Your task to perform on an android device: toggle notifications settings in the gmail app Image 0: 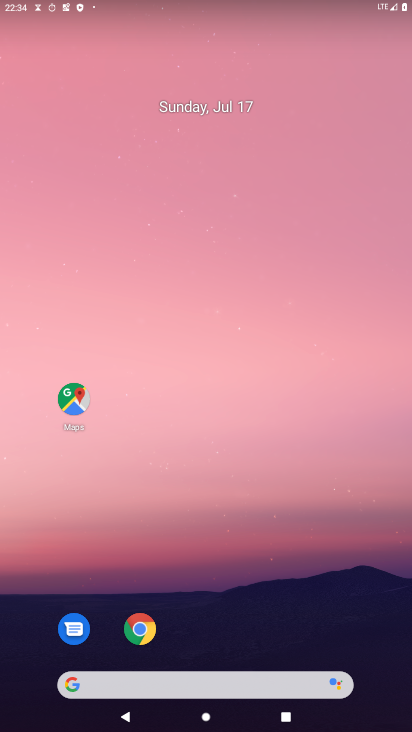
Step 0: drag from (227, 695) to (209, 98)
Your task to perform on an android device: toggle notifications settings in the gmail app Image 1: 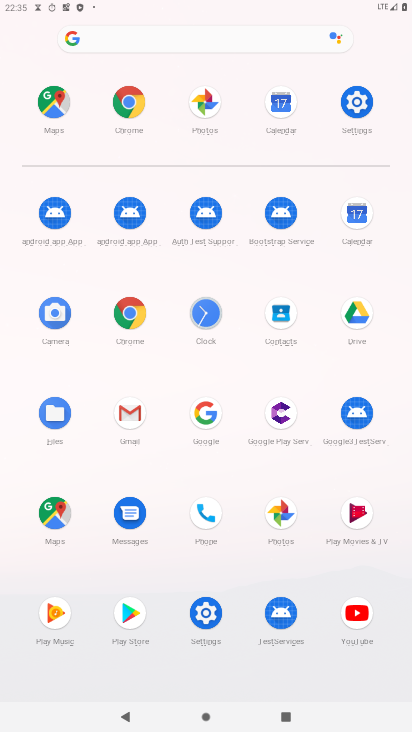
Step 1: click (130, 413)
Your task to perform on an android device: toggle notifications settings in the gmail app Image 2: 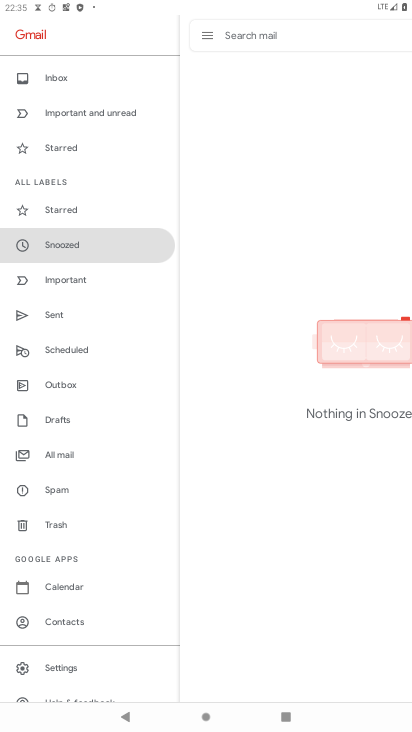
Step 2: click (69, 668)
Your task to perform on an android device: toggle notifications settings in the gmail app Image 3: 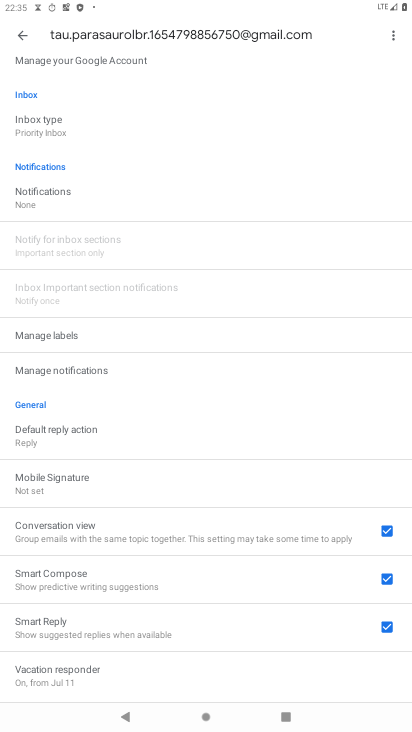
Step 3: click (47, 195)
Your task to perform on an android device: toggle notifications settings in the gmail app Image 4: 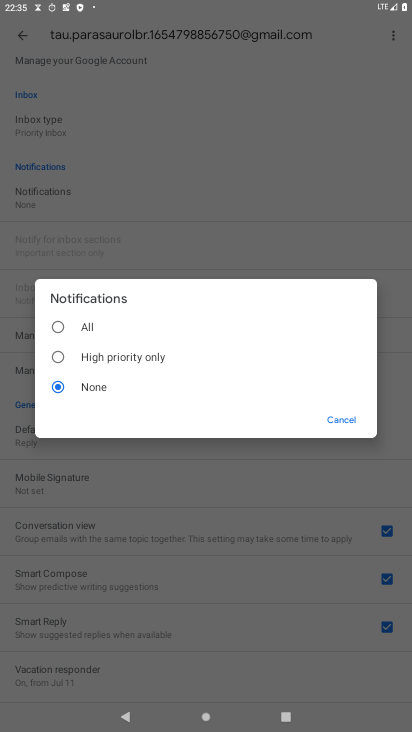
Step 4: click (59, 327)
Your task to perform on an android device: toggle notifications settings in the gmail app Image 5: 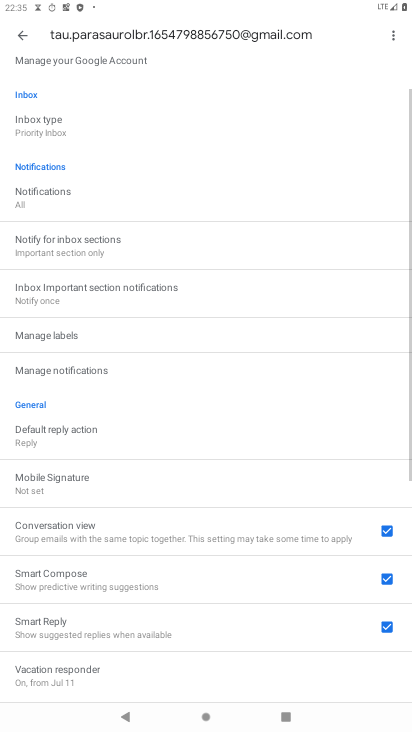
Step 5: task complete